Your task to perform on an android device: uninstall "YouTube Kids" Image 0: 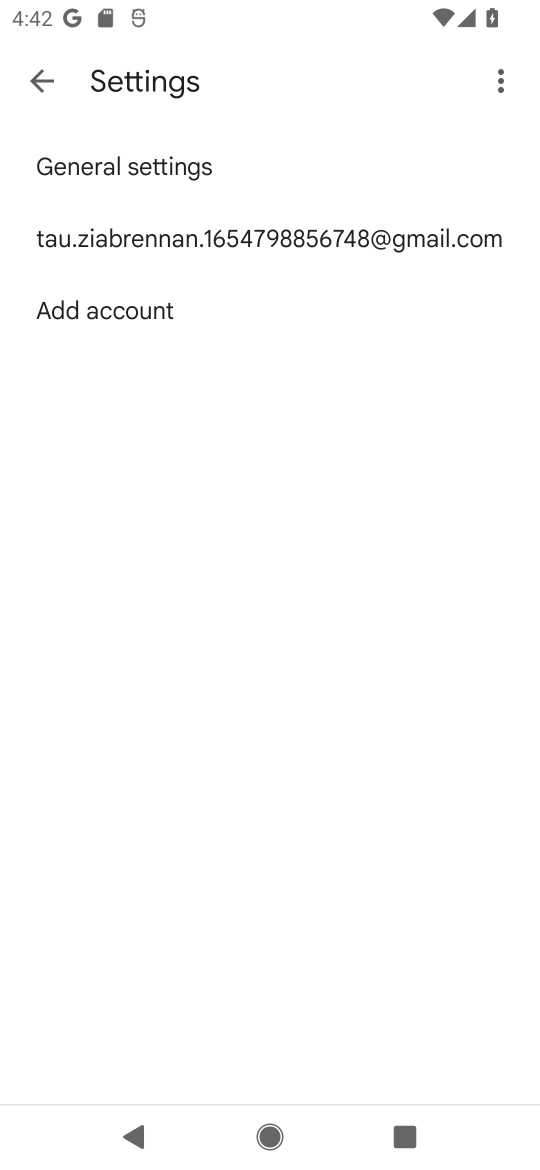
Step 0: press home button
Your task to perform on an android device: uninstall "YouTube Kids" Image 1: 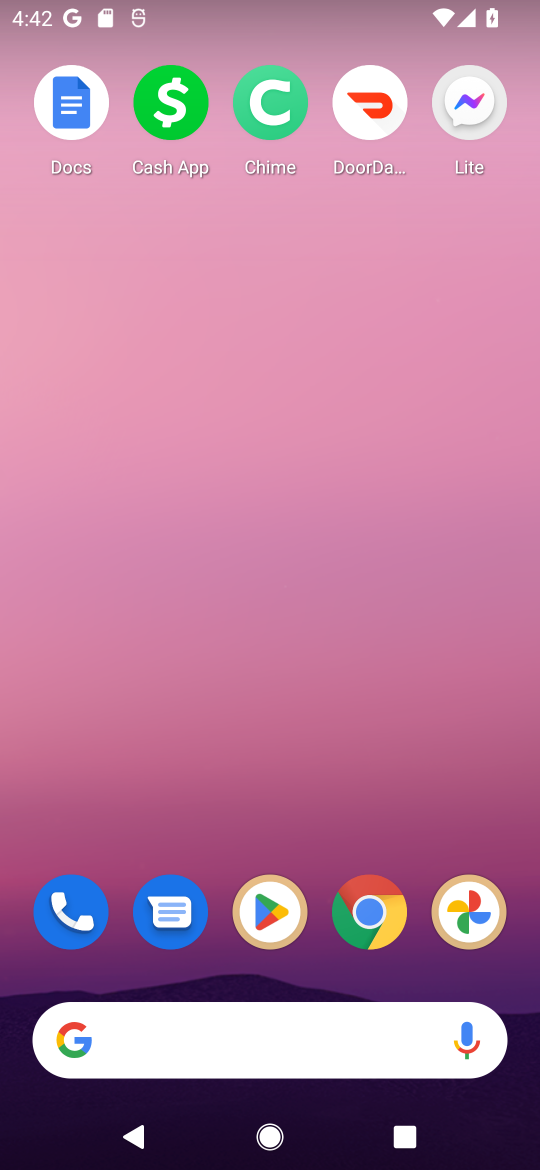
Step 1: click (278, 900)
Your task to perform on an android device: uninstall "YouTube Kids" Image 2: 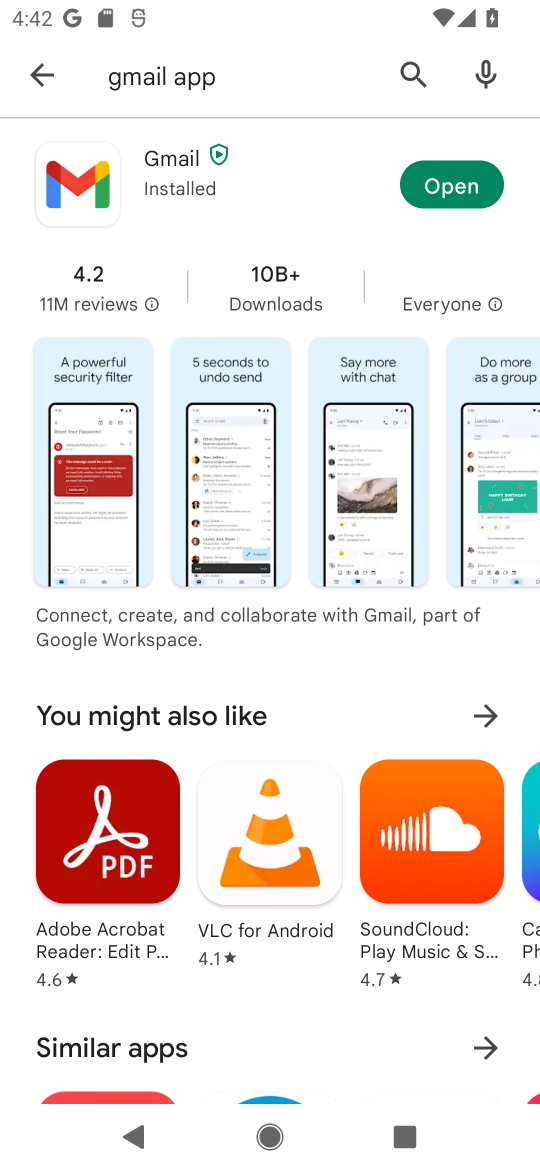
Step 2: click (39, 57)
Your task to perform on an android device: uninstall "YouTube Kids" Image 3: 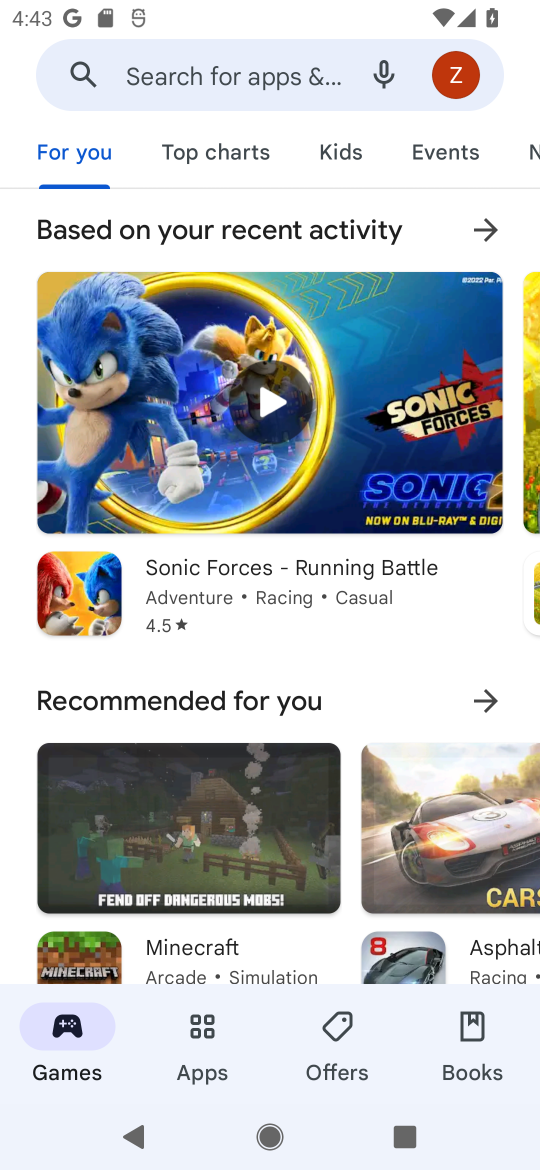
Step 3: click (226, 61)
Your task to perform on an android device: uninstall "YouTube Kids" Image 4: 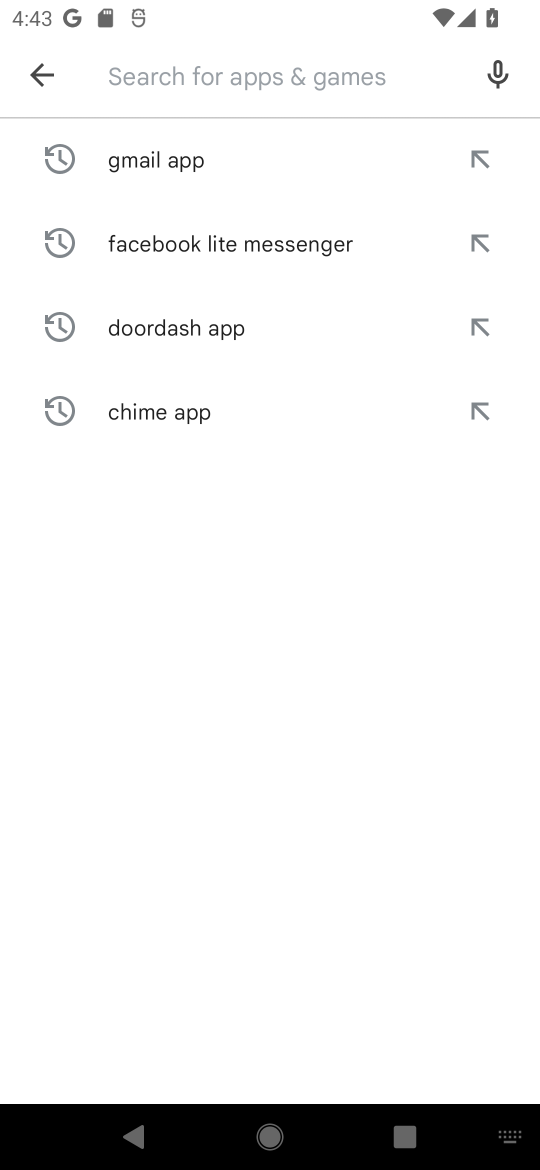
Step 4: type "YouTube Kids "
Your task to perform on an android device: uninstall "YouTube Kids" Image 5: 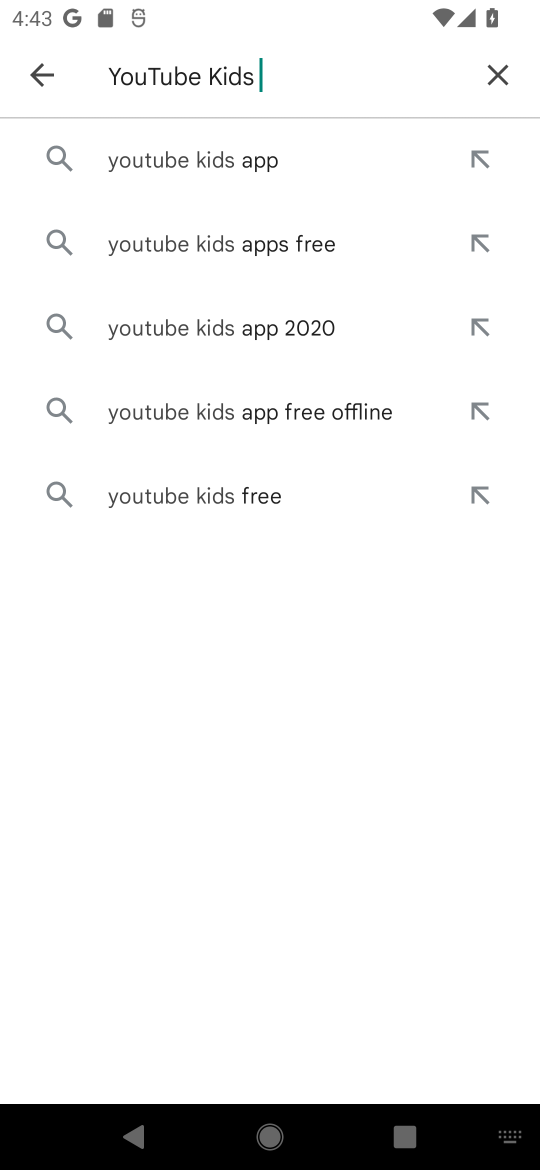
Step 5: click (228, 152)
Your task to perform on an android device: uninstall "YouTube Kids" Image 6: 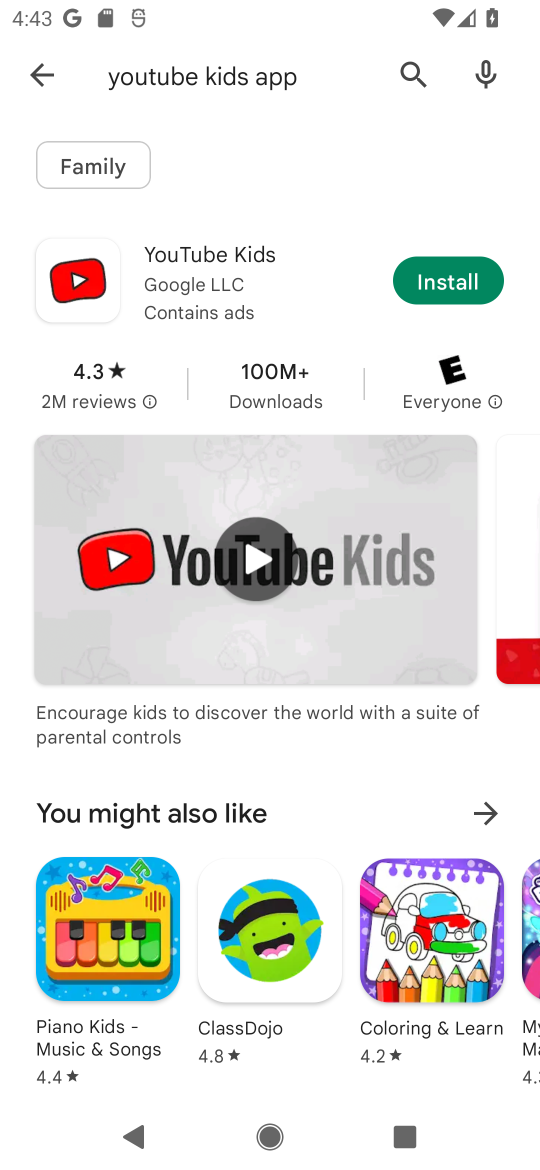
Step 6: click (449, 266)
Your task to perform on an android device: uninstall "YouTube Kids" Image 7: 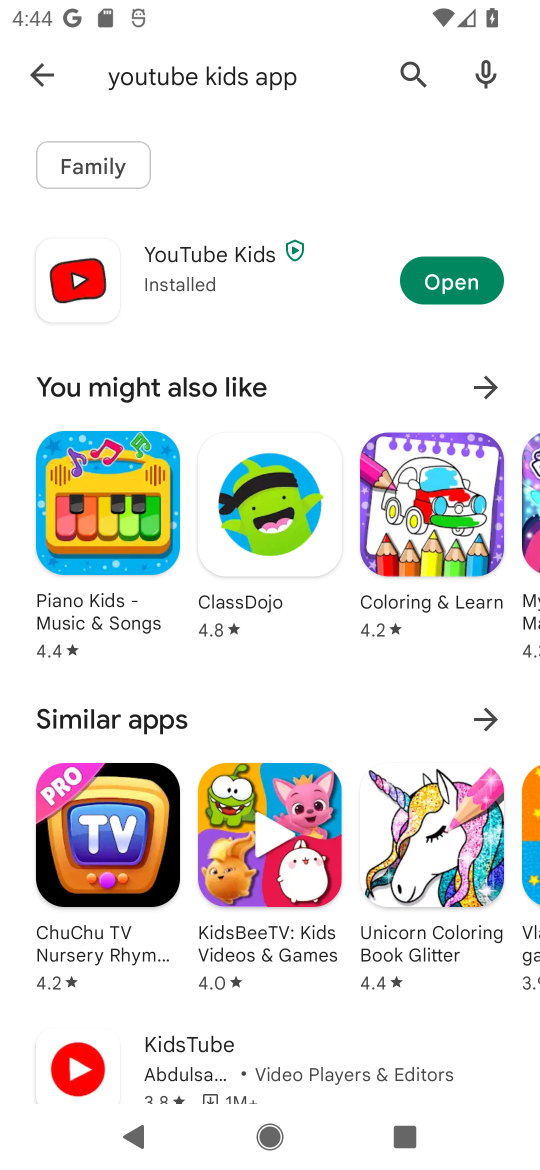
Step 7: click (165, 286)
Your task to perform on an android device: uninstall "YouTube Kids" Image 8: 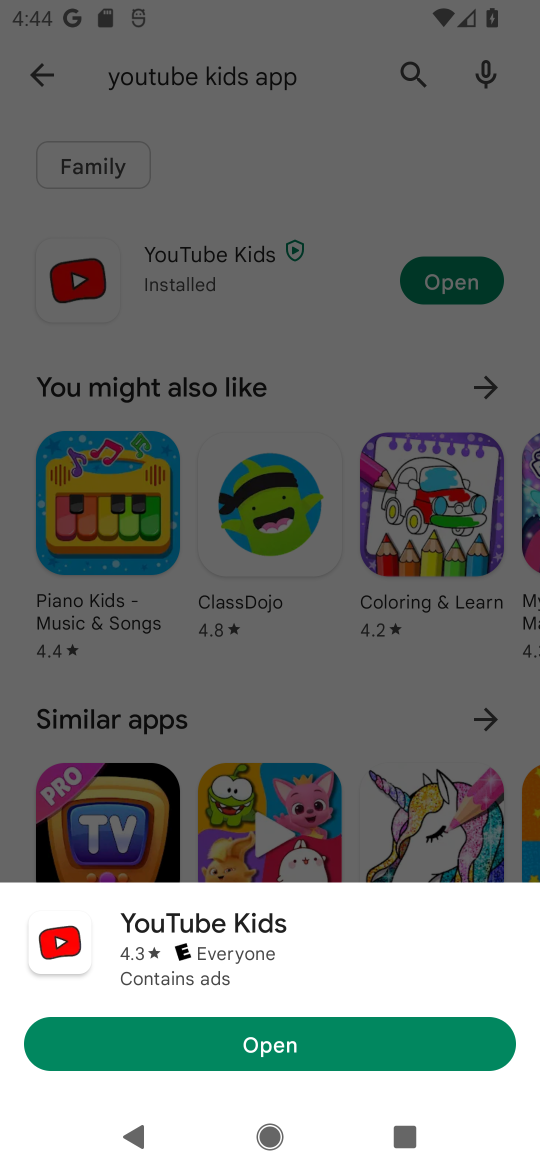
Step 8: click (235, 1054)
Your task to perform on an android device: uninstall "YouTube Kids" Image 9: 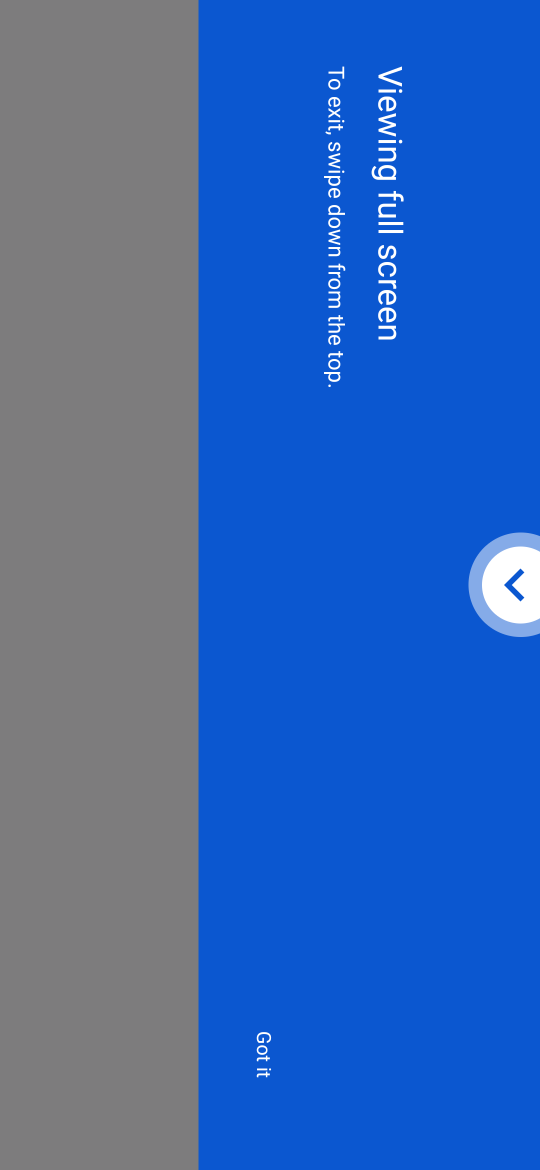
Step 9: press back button
Your task to perform on an android device: uninstall "YouTube Kids" Image 10: 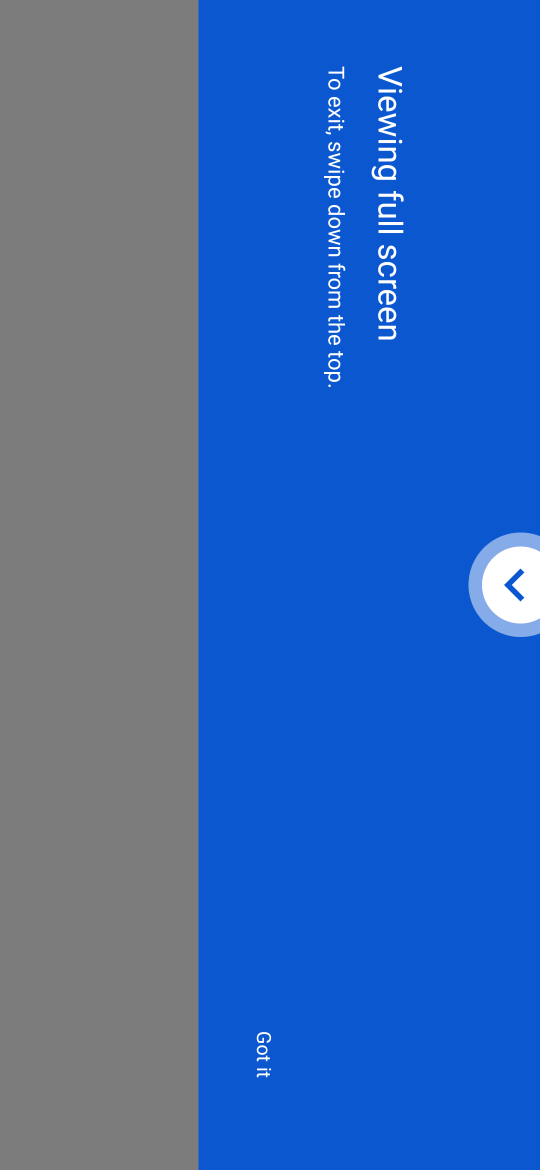
Step 10: press back button
Your task to perform on an android device: uninstall "YouTube Kids" Image 11: 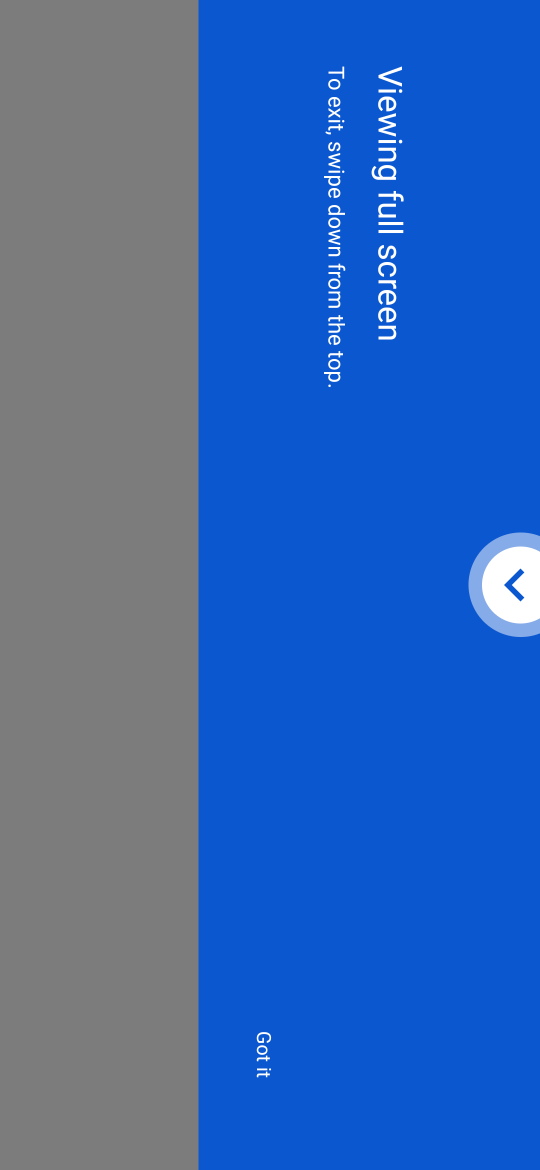
Step 11: press back button
Your task to perform on an android device: uninstall "YouTube Kids" Image 12: 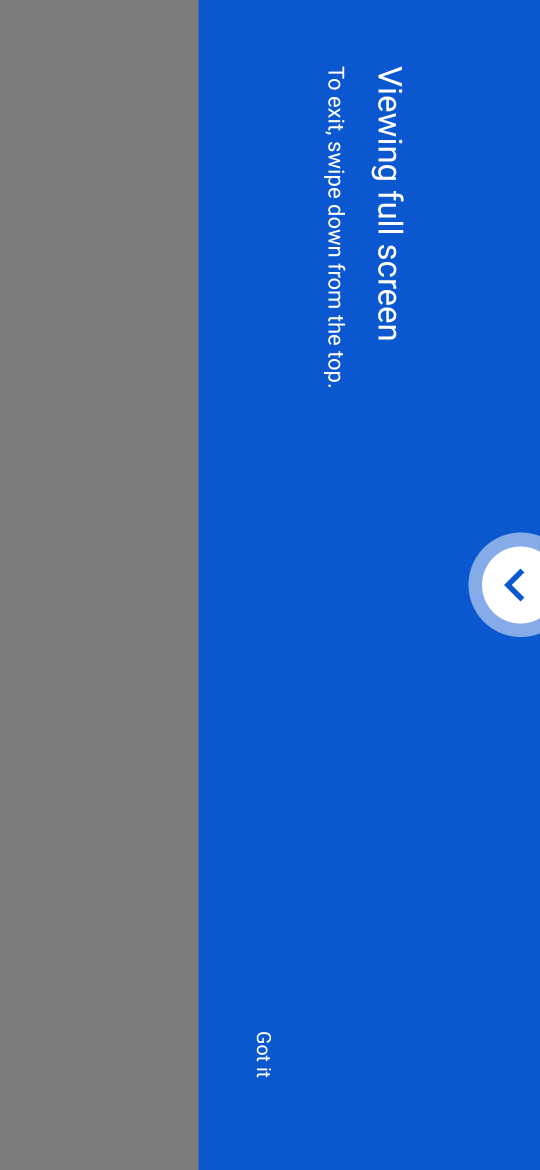
Step 12: press back button
Your task to perform on an android device: uninstall "YouTube Kids" Image 13: 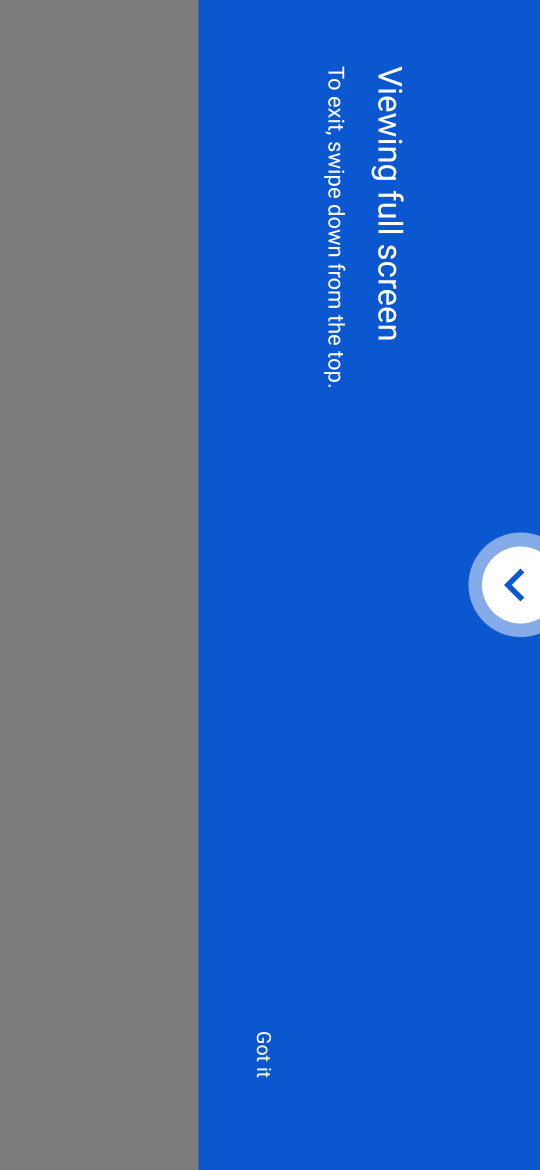
Step 13: press back button
Your task to perform on an android device: uninstall "YouTube Kids" Image 14: 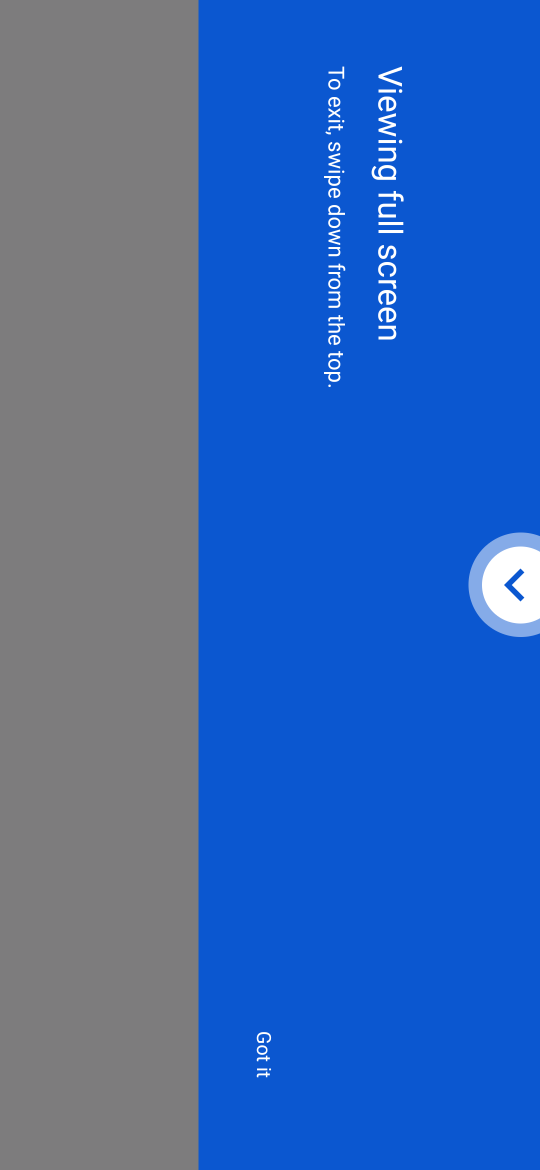
Step 14: press back button
Your task to perform on an android device: uninstall "YouTube Kids" Image 15: 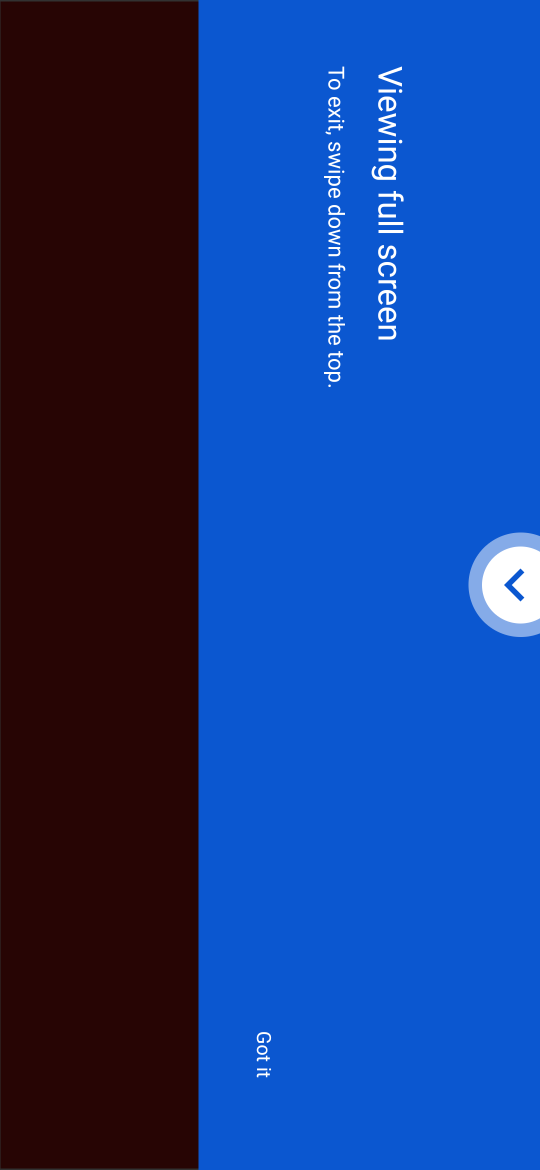
Step 15: press back button
Your task to perform on an android device: uninstall "YouTube Kids" Image 16: 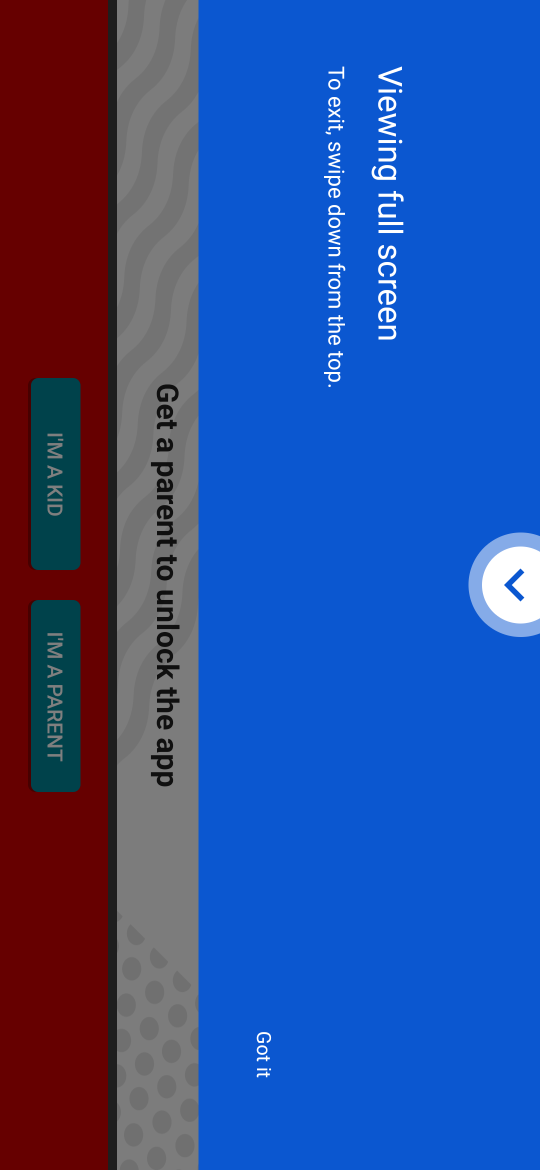
Step 16: press back button
Your task to perform on an android device: uninstall "YouTube Kids" Image 17: 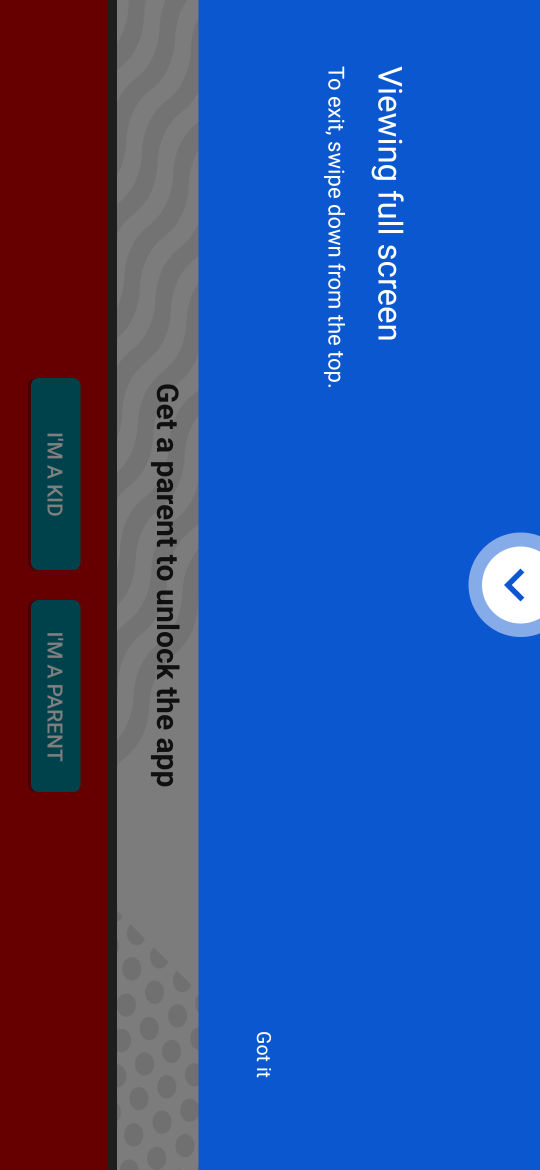
Step 17: press back button
Your task to perform on an android device: uninstall "YouTube Kids" Image 18: 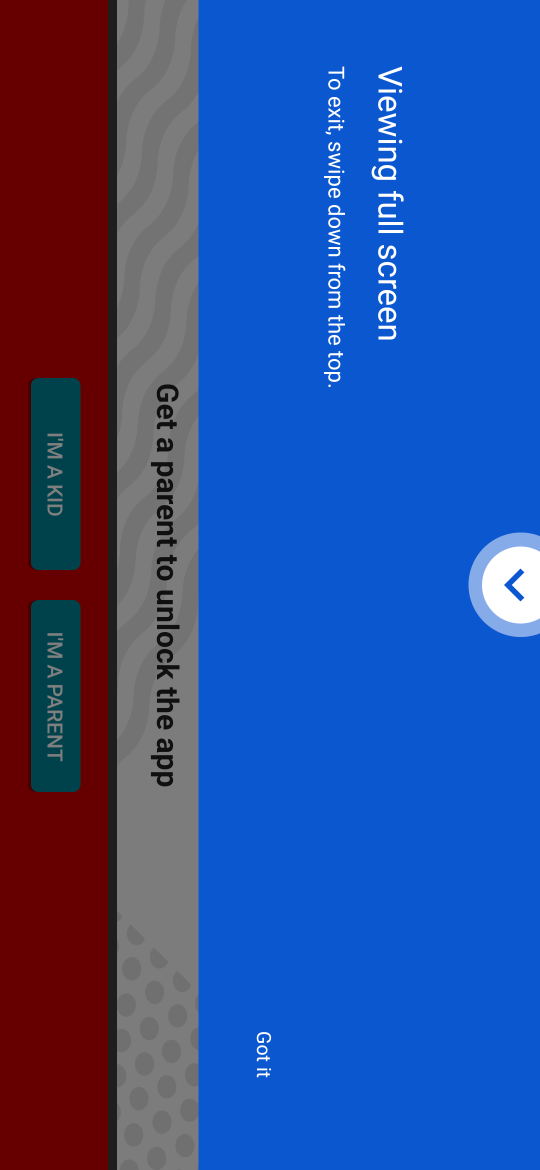
Step 18: press back button
Your task to perform on an android device: uninstall "YouTube Kids" Image 19: 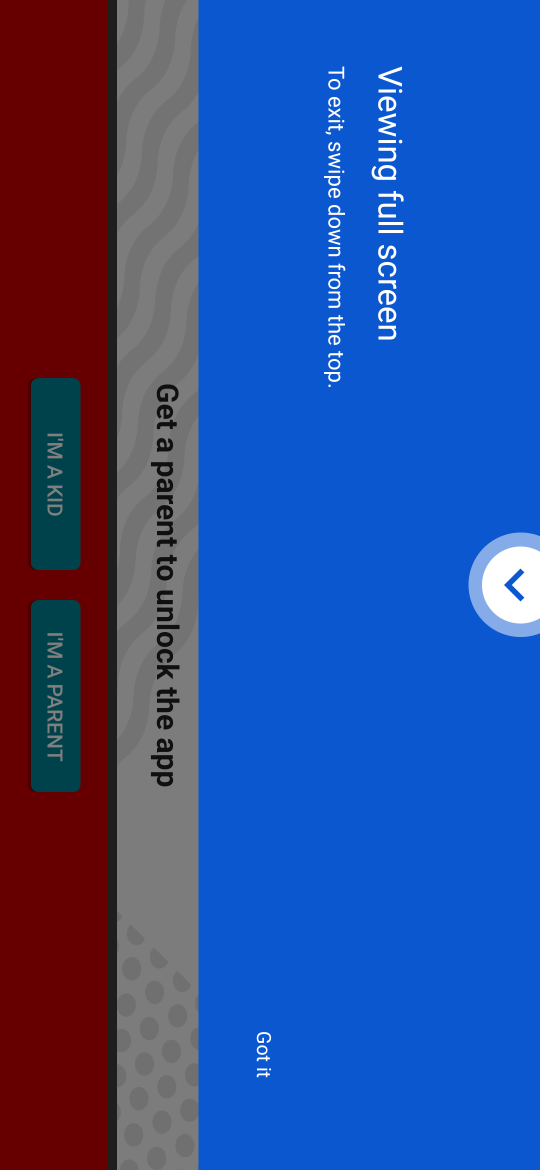
Step 19: press back button
Your task to perform on an android device: uninstall "YouTube Kids" Image 20: 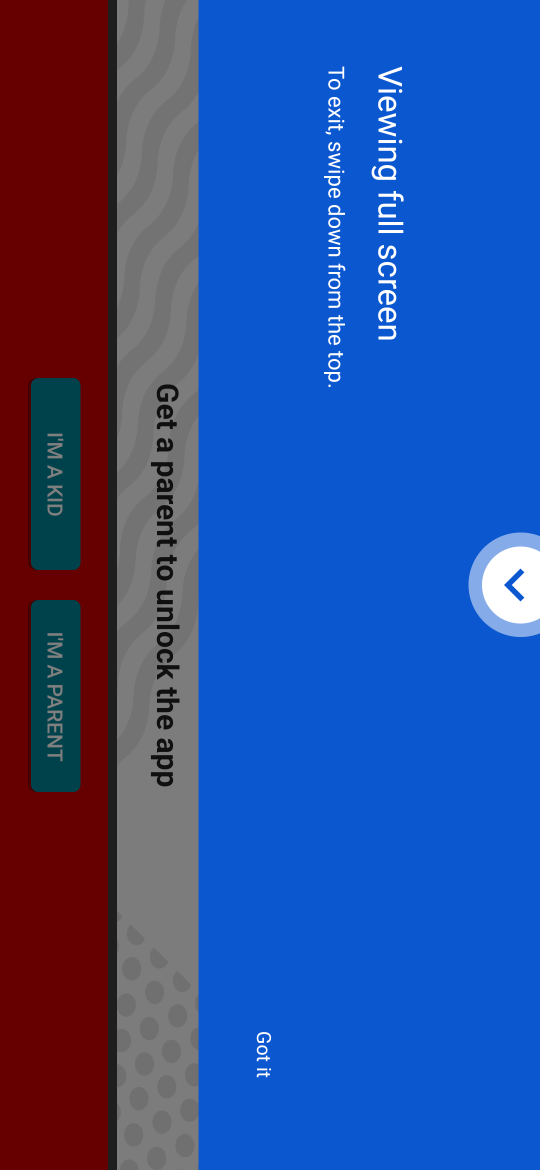
Step 20: press back button
Your task to perform on an android device: uninstall "YouTube Kids" Image 21: 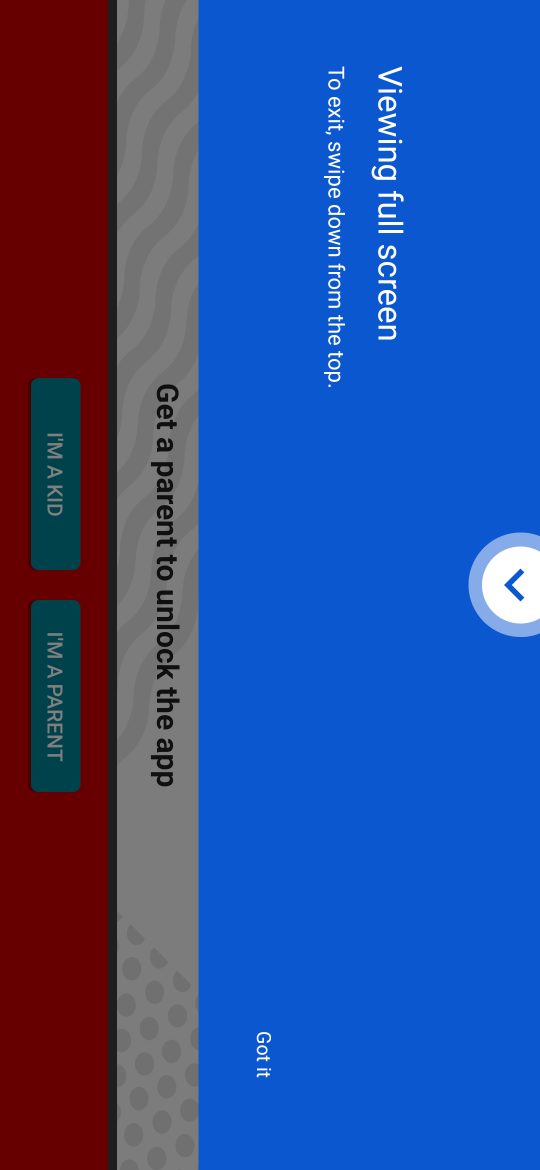
Step 21: press back button
Your task to perform on an android device: uninstall "YouTube Kids" Image 22: 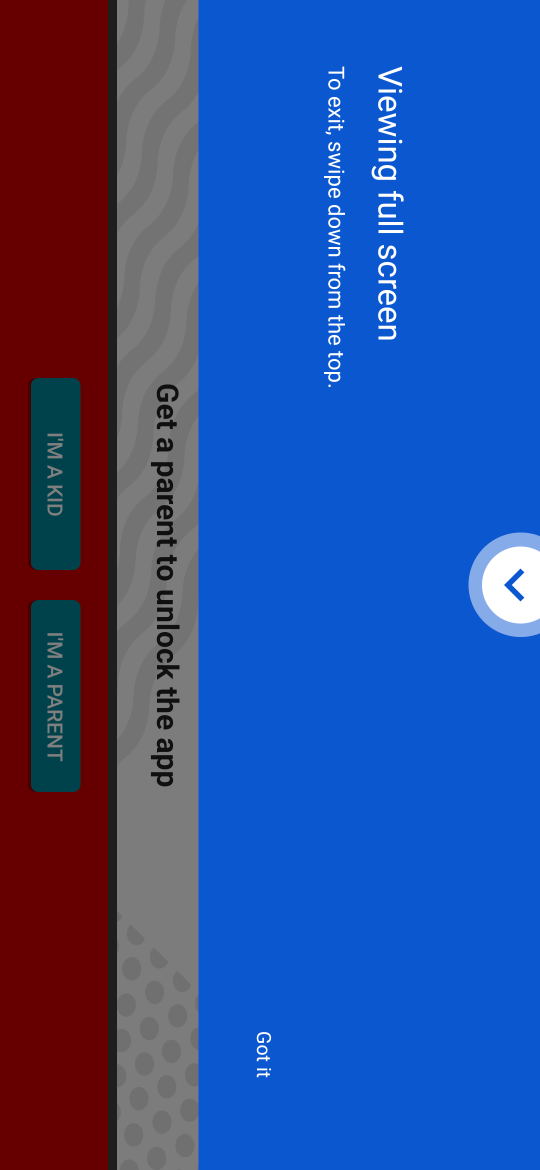
Step 22: press back button
Your task to perform on an android device: uninstall "YouTube Kids" Image 23: 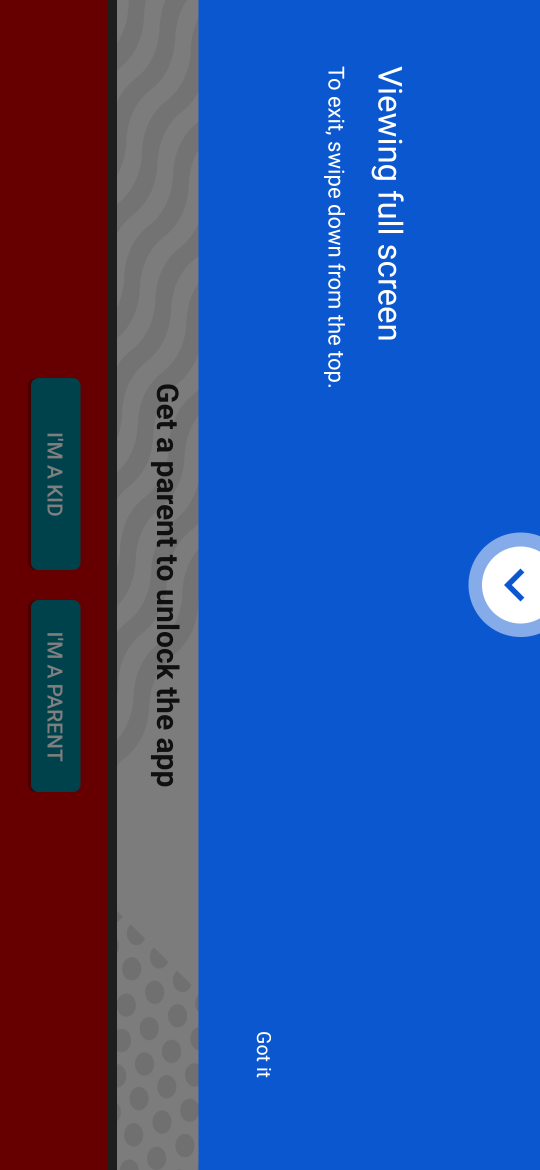
Step 23: press back button
Your task to perform on an android device: uninstall "YouTube Kids" Image 24: 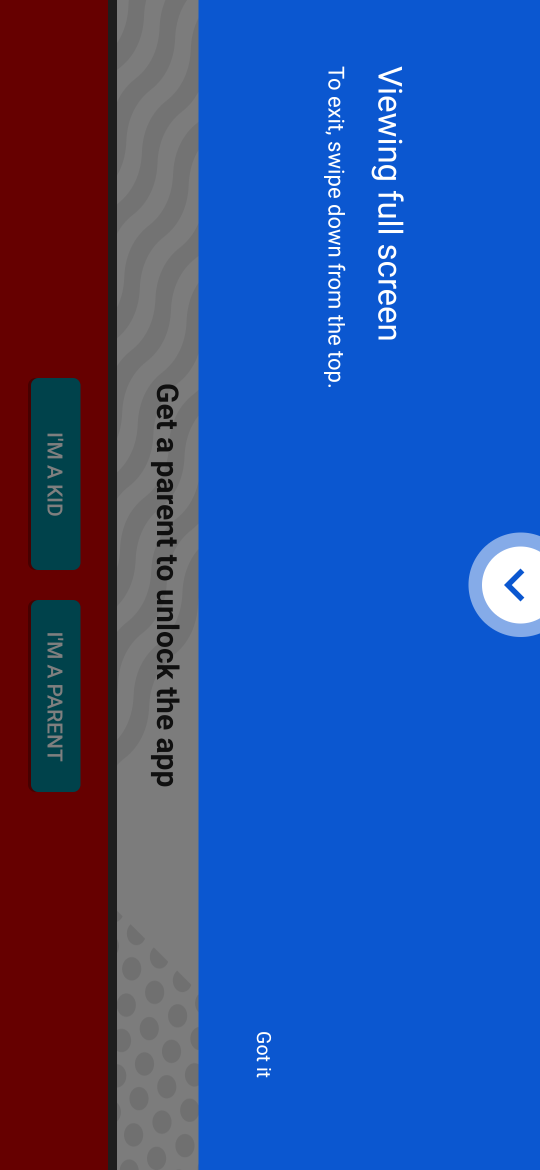
Step 24: press back button
Your task to perform on an android device: uninstall "YouTube Kids" Image 25: 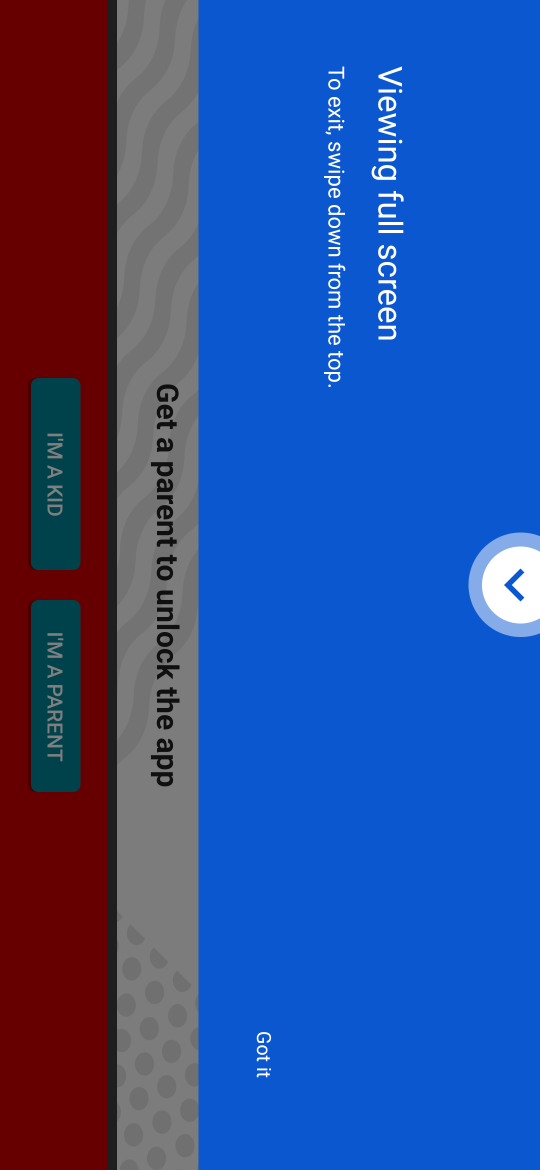
Step 25: press home button
Your task to perform on an android device: uninstall "YouTube Kids" Image 26: 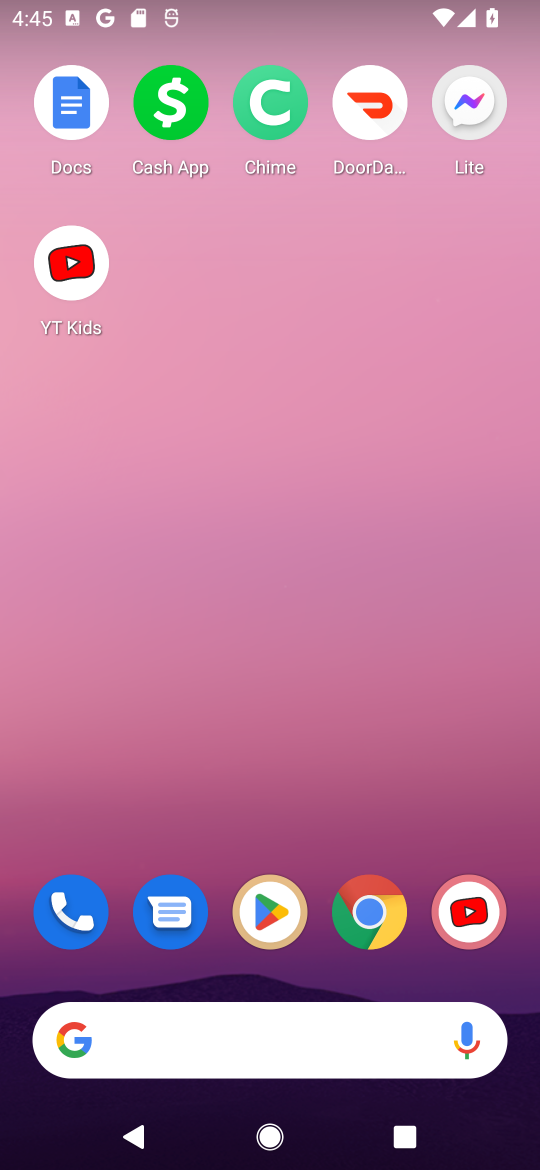
Step 26: drag from (262, 921) to (307, 560)
Your task to perform on an android device: uninstall "YouTube Kids" Image 27: 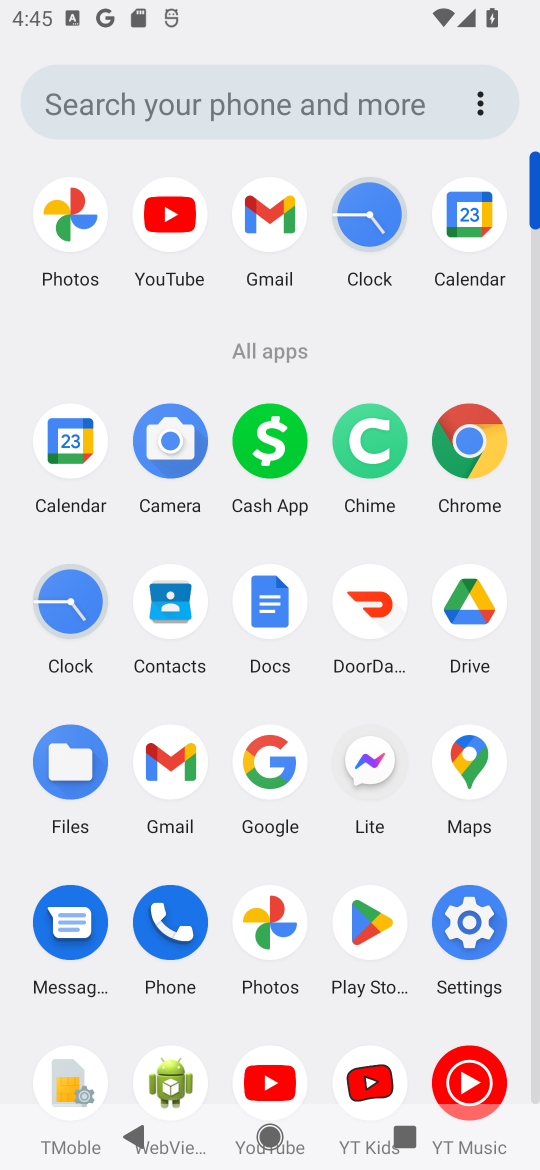
Step 27: click (361, 902)
Your task to perform on an android device: uninstall "YouTube Kids" Image 28: 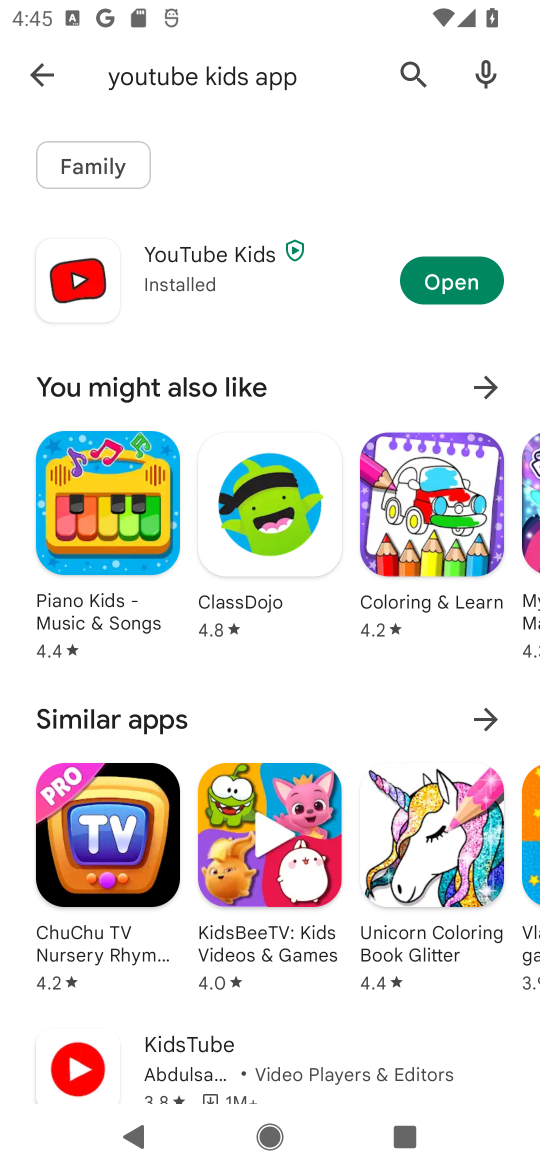
Step 28: click (215, 245)
Your task to perform on an android device: uninstall "YouTube Kids" Image 29: 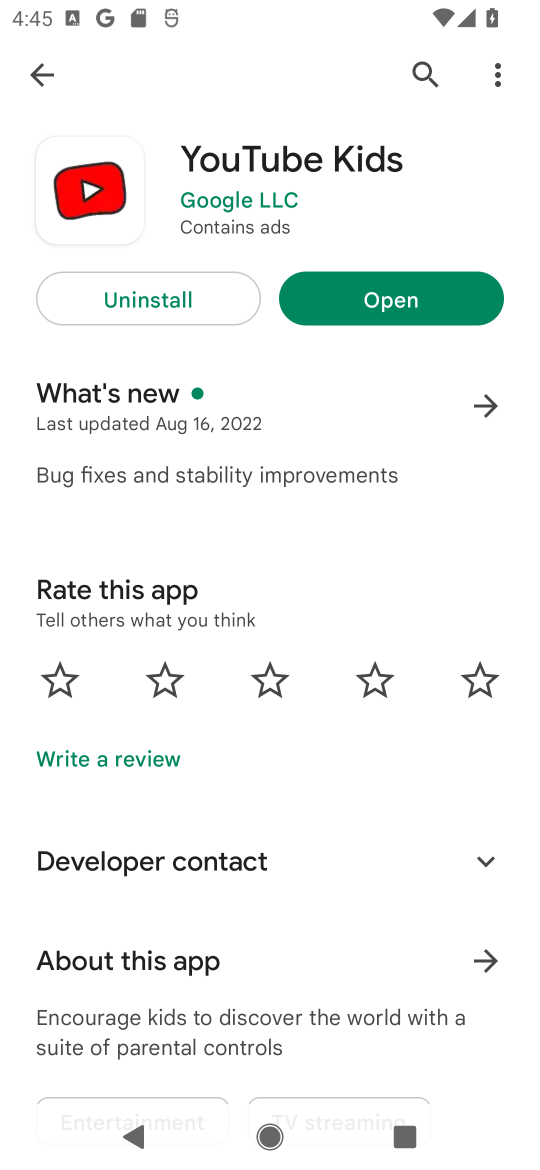
Step 29: click (168, 285)
Your task to perform on an android device: uninstall "YouTube Kids" Image 30: 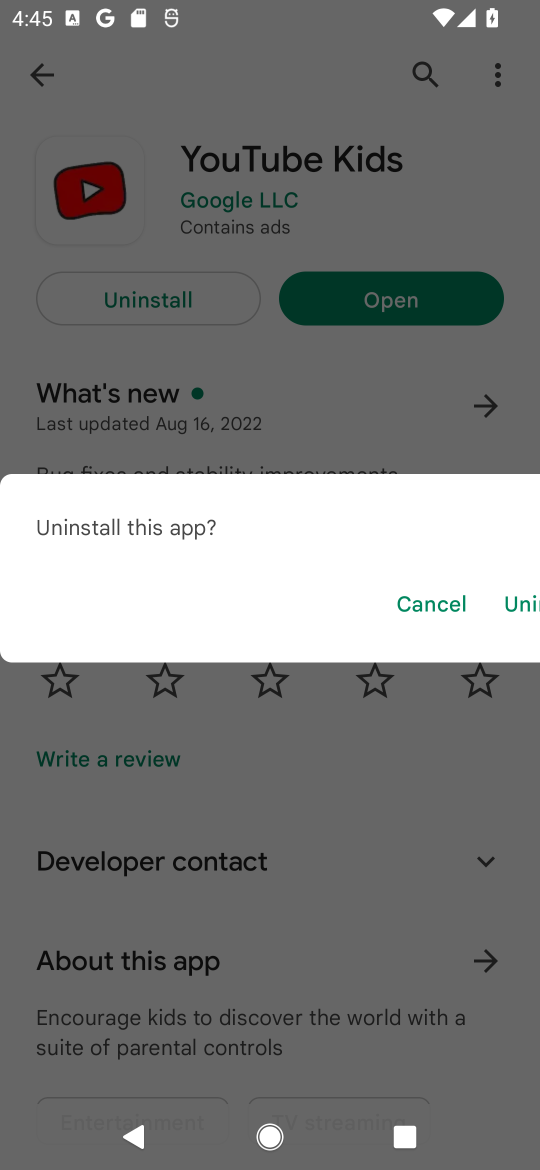
Step 30: click (518, 604)
Your task to perform on an android device: uninstall "YouTube Kids" Image 31: 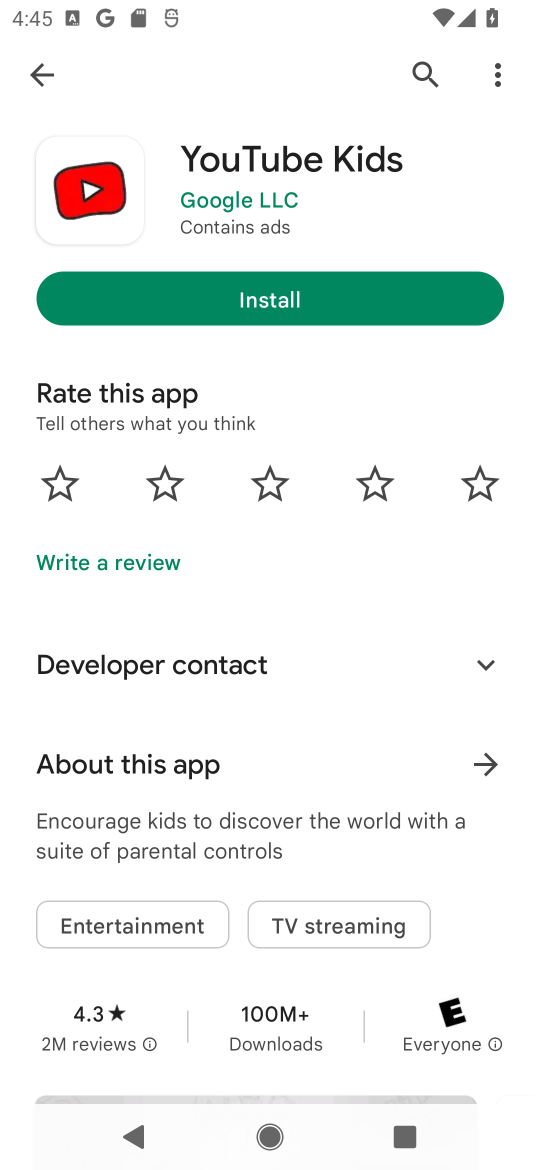
Step 31: task complete